Your task to perform on an android device: add a contact Image 0: 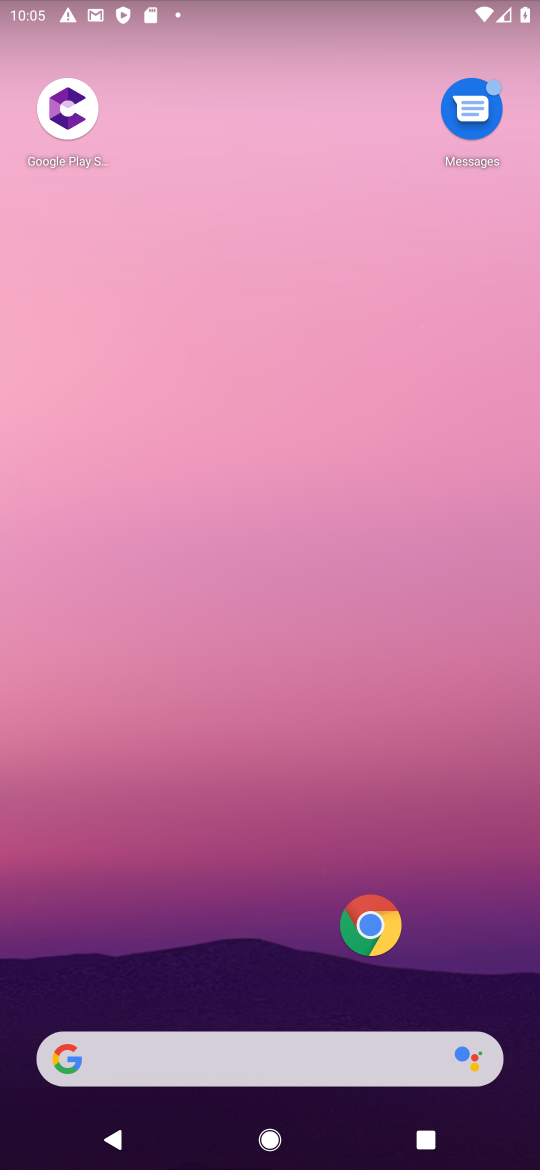
Step 0: drag from (63, 980) to (134, 76)
Your task to perform on an android device: add a contact Image 1: 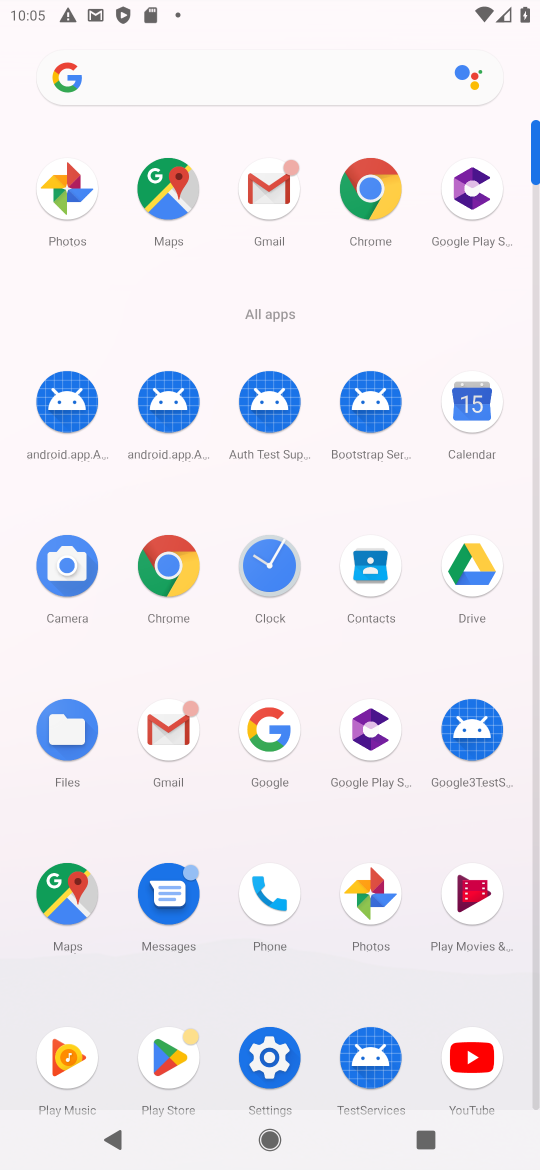
Step 1: click (280, 923)
Your task to perform on an android device: add a contact Image 2: 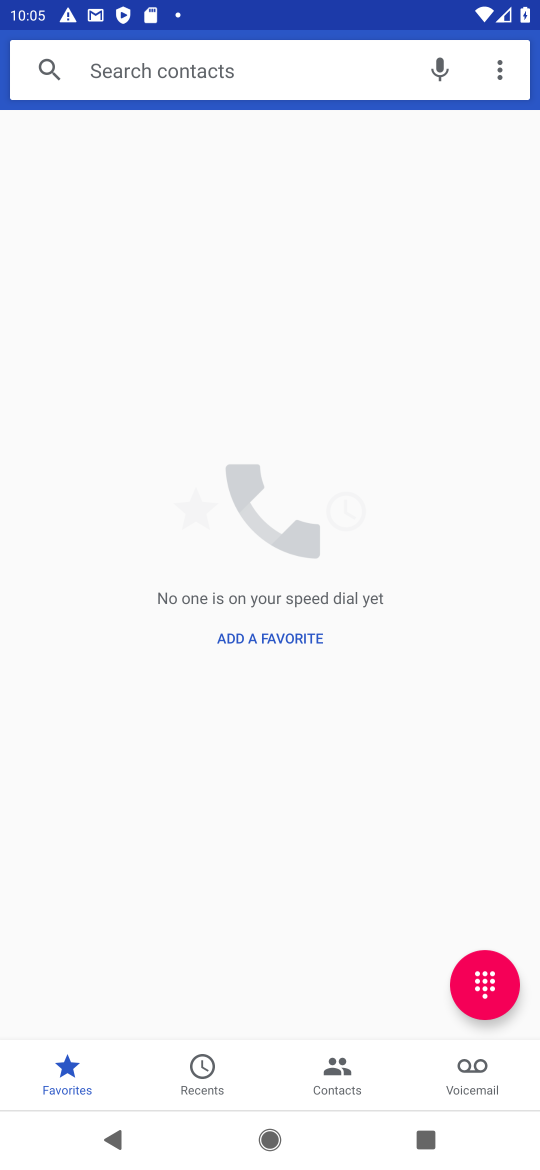
Step 2: click (327, 1093)
Your task to perform on an android device: add a contact Image 3: 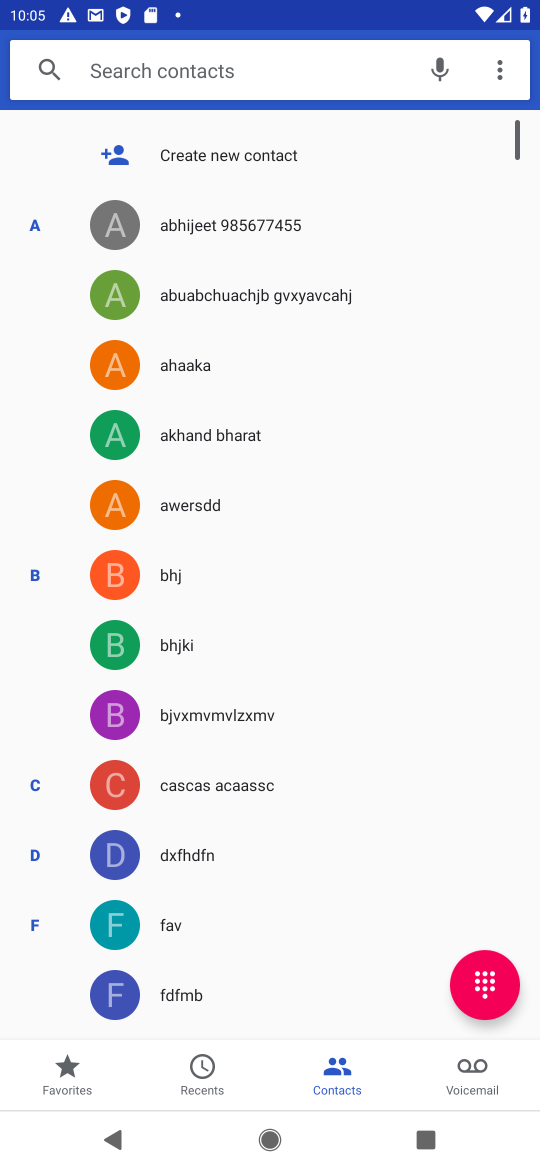
Step 3: click (176, 145)
Your task to perform on an android device: add a contact Image 4: 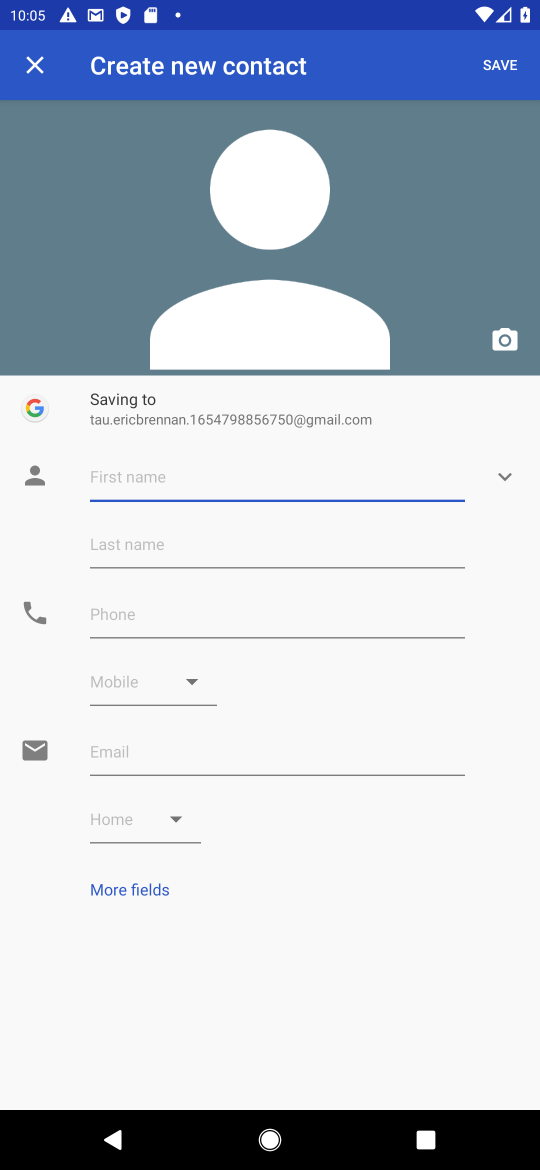
Step 4: type "fghjh"
Your task to perform on an android device: add a contact Image 5: 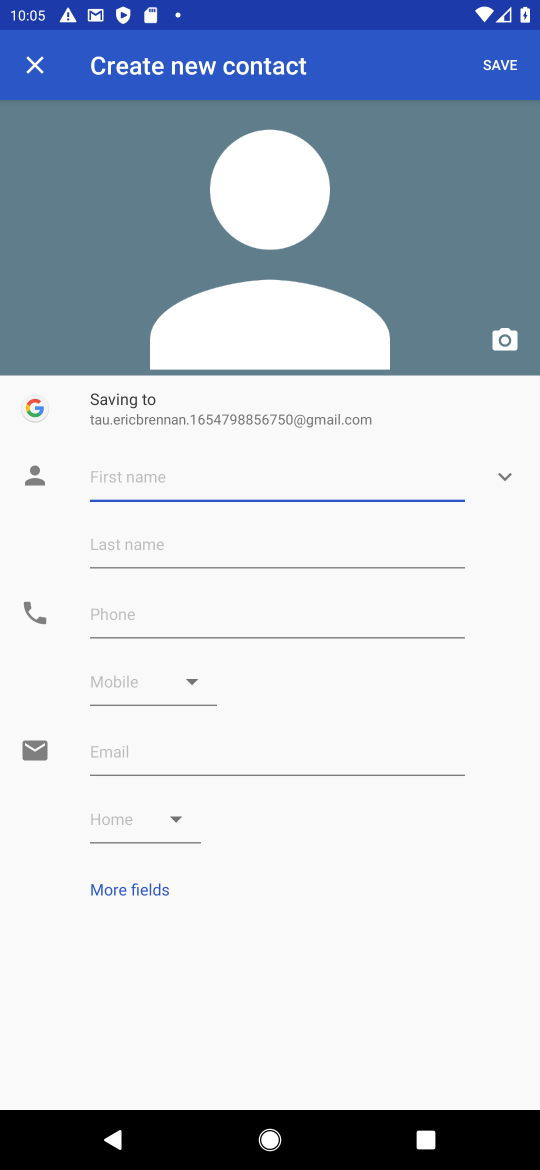
Step 5: click (185, 616)
Your task to perform on an android device: add a contact Image 6: 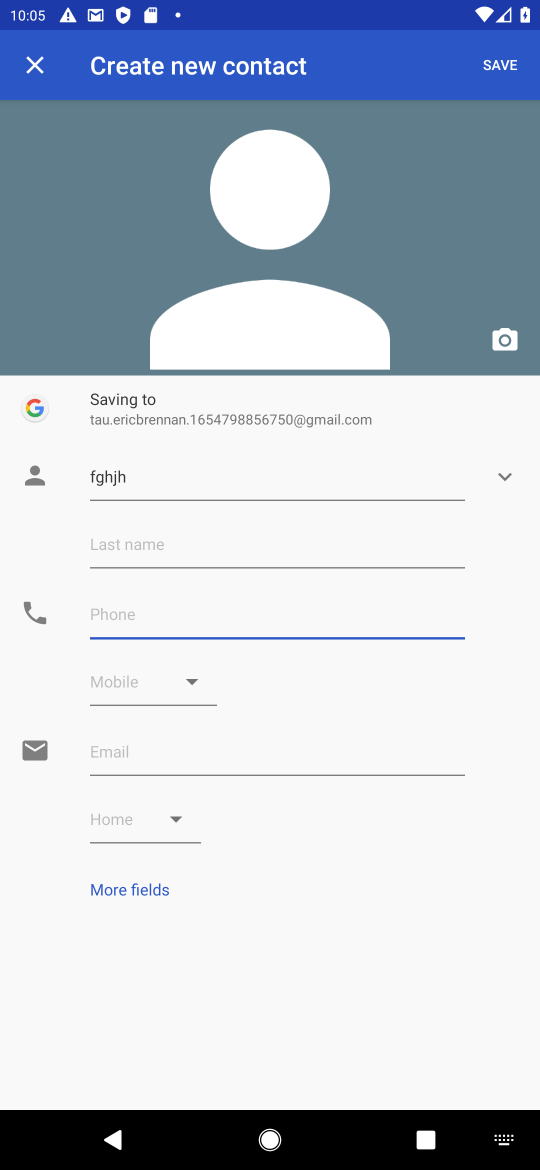
Step 6: type "5678765"
Your task to perform on an android device: add a contact Image 7: 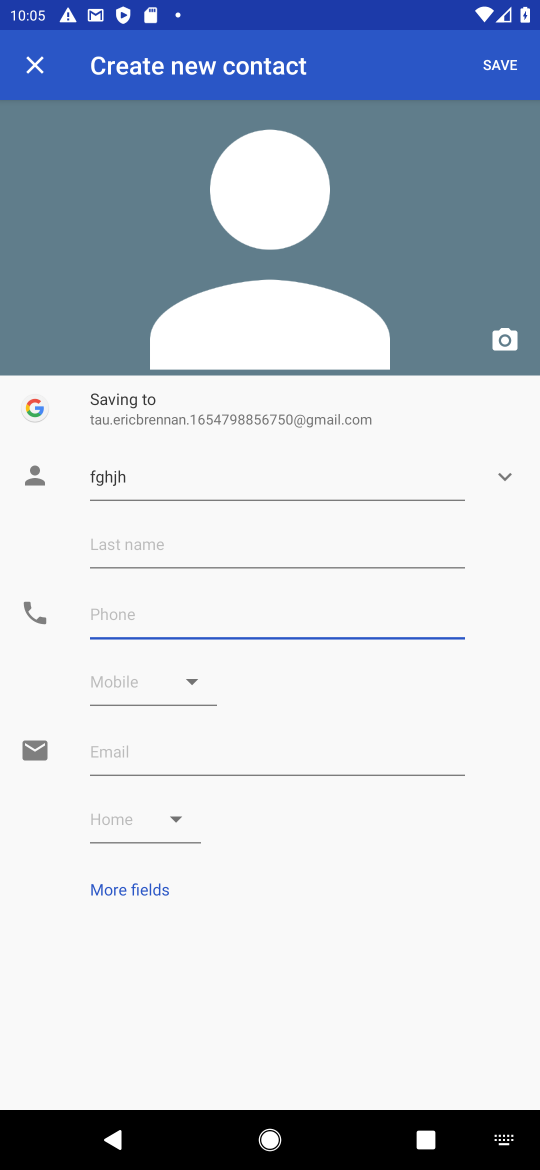
Step 7: click (502, 76)
Your task to perform on an android device: add a contact Image 8: 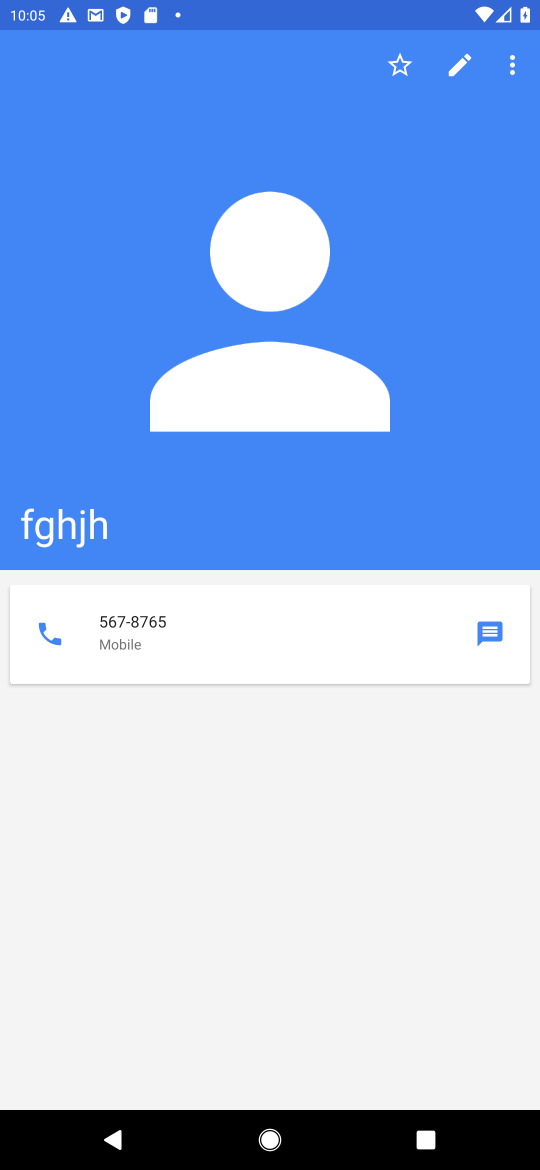
Step 8: task complete